Your task to perform on an android device: Do I have any events tomorrow? Image 0: 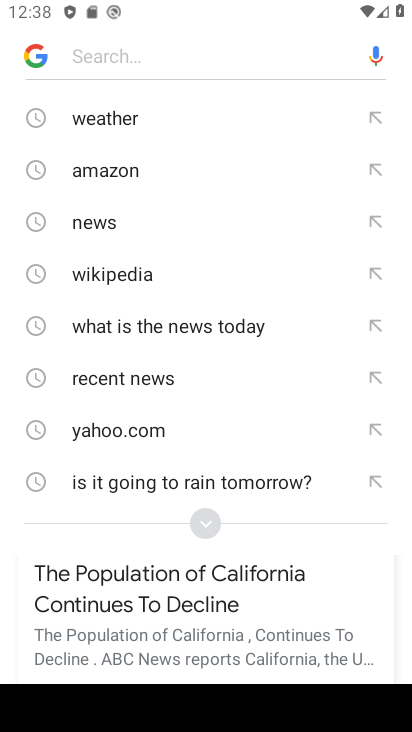
Step 0: press home button
Your task to perform on an android device: Do I have any events tomorrow? Image 1: 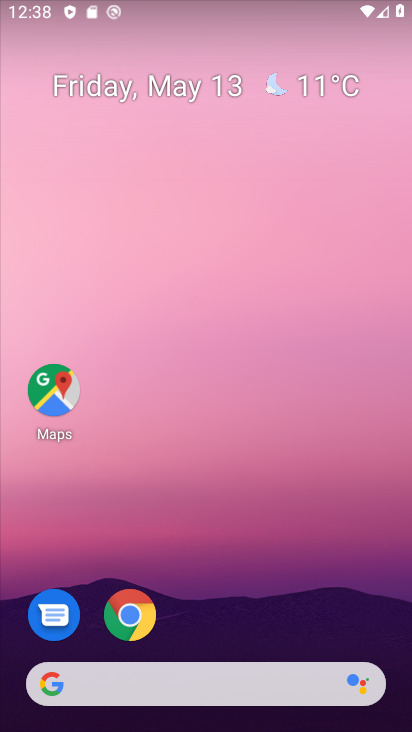
Step 1: drag from (233, 632) to (328, 38)
Your task to perform on an android device: Do I have any events tomorrow? Image 2: 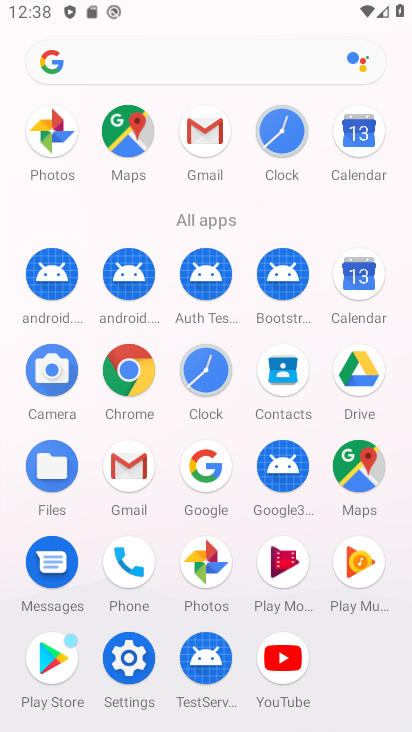
Step 2: click (364, 293)
Your task to perform on an android device: Do I have any events tomorrow? Image 3: 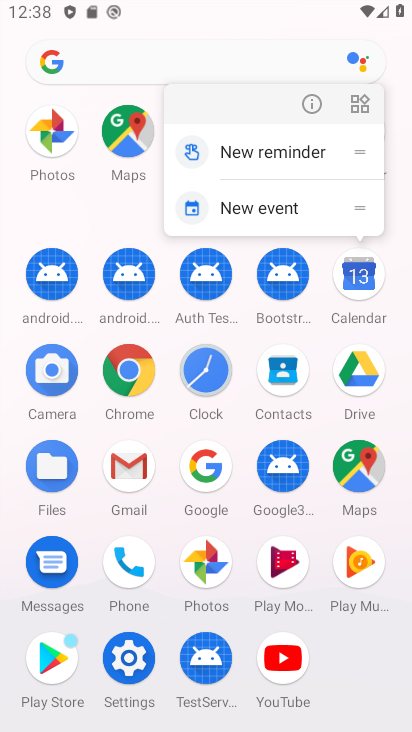
Step 3: click (364, 288)
Your task to perform on an android device: Do I have any events tomorrow? Image 4: 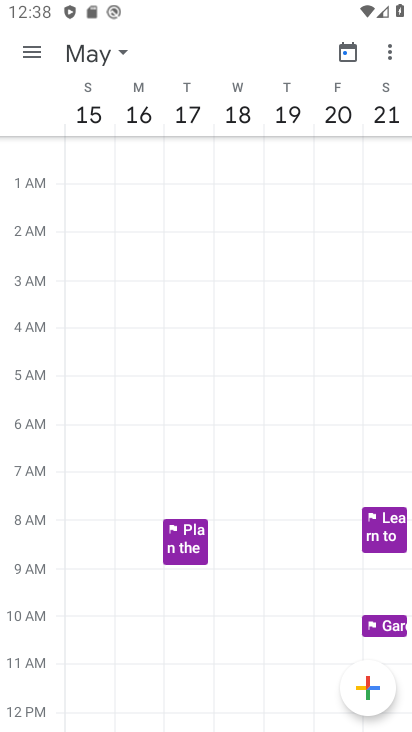
Step 4: click (32, 52)
Your task to perform on an android device: Do I have any events tomorrow? Image 5: 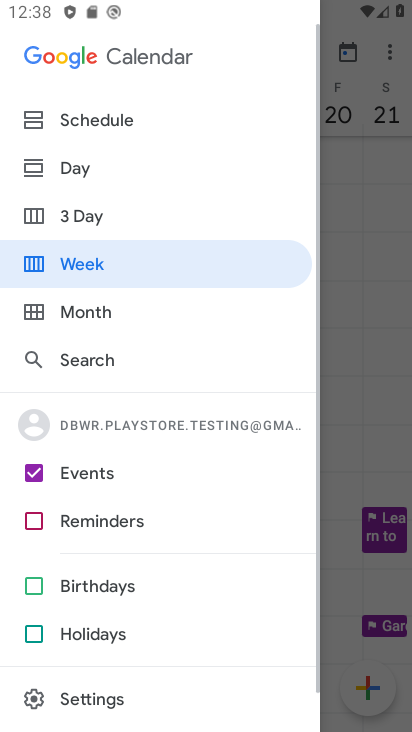
Step 5: click (88, 216)
Your task to perform on an android device: Do I have any events tomorrow? Image 6: 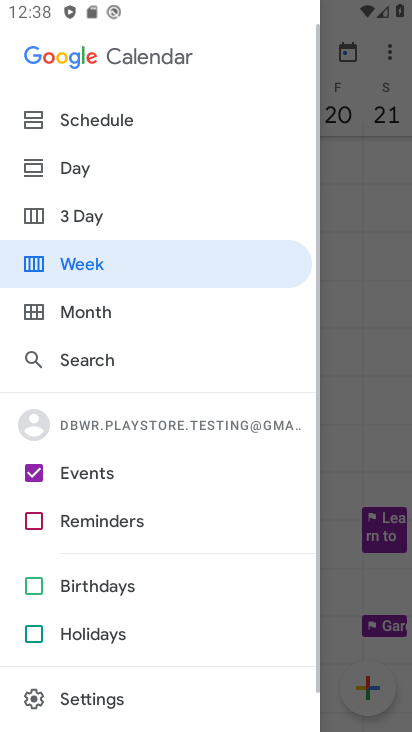
Step 6: click (88, 222)
Your task to perform on an android device: Do I have any events tomorrow? Image 7: 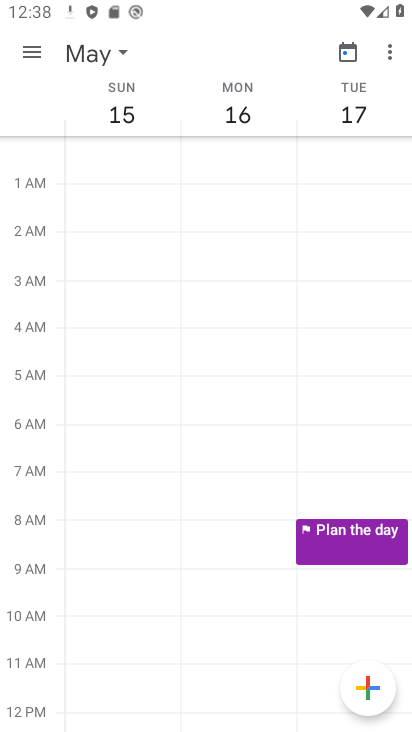
Step 7: task complete